Your task to perform on an android device: turn pop-ups off in chrome Image 0: 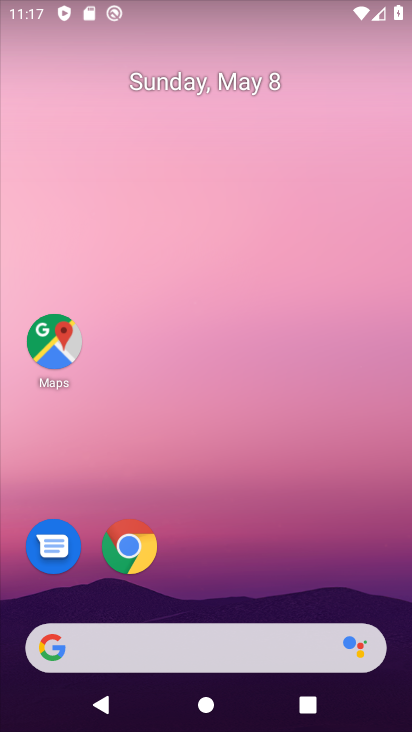
Step 0: click (141, 565)
Your task to perform on an android device: turn pop-ups off in chrome Image 1: 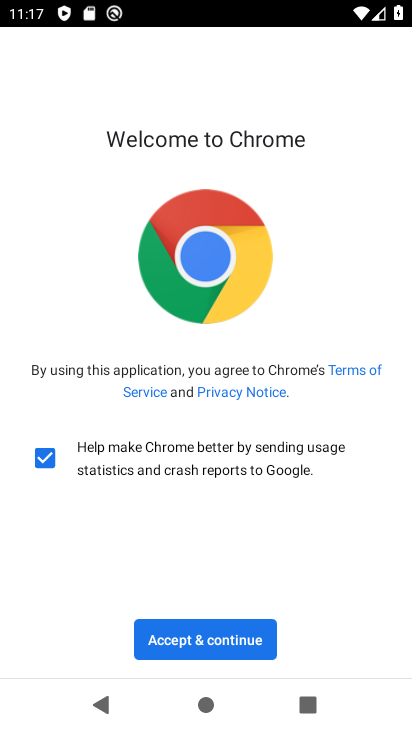
Step 1: click (242, 653)
Your task to perform on an android device: turn pop-ups off in chrome Image 2: 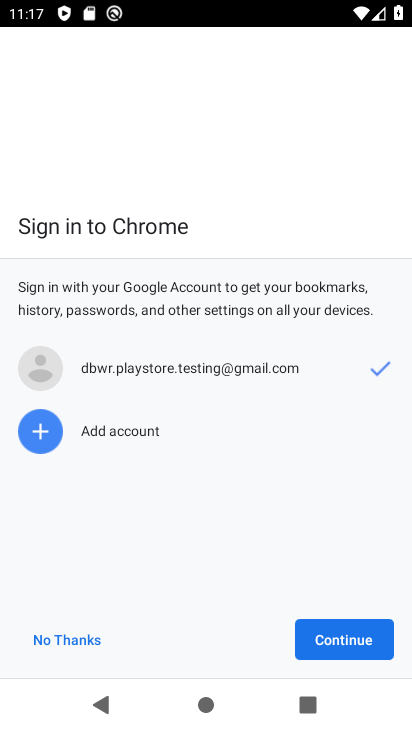
Step 2: click (341, 629)
Your task to perform on an android device: turn pop-ups off in chrome Image 3: 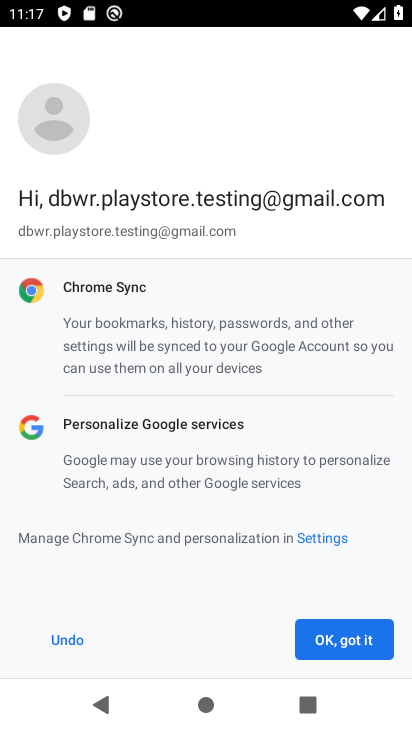
Step 3: click (341, 629)
Your task to perform on an android device: turn pop-ups off in chrome Image 4: 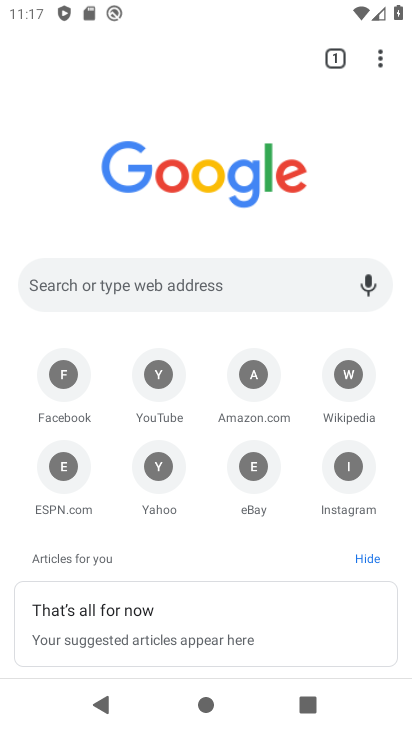
Step 4: click (384, 59)
Your task to perform on an android device: turn pop-ups off in chrome Image 5: 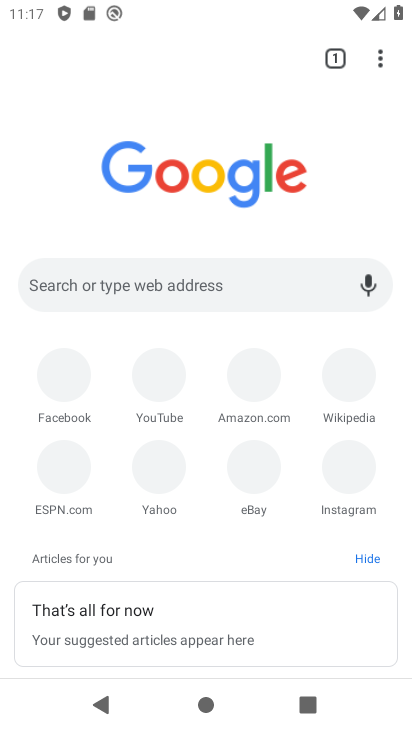
Step 5: drag from (384, 59) to (195, 490)
Your task to perform on an android device: turn pop-ups off in chrome Image 6: 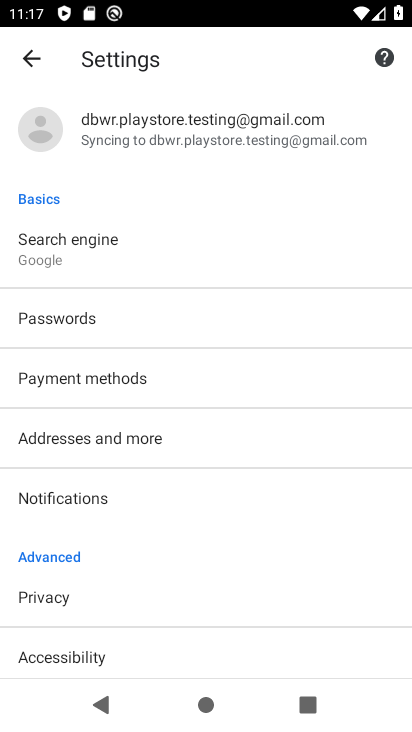
Step 6: drag from (215, 558) to (289, 169)
Your task to perform on an android device: turn pop-ups off in chrome Image 7: 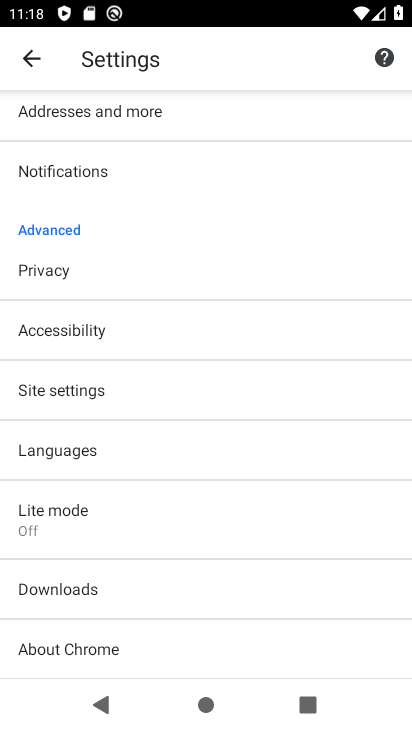
Step 7: click (111, 391)
Your task to perform on an android device: turn pop-ups off in chrome Image 8: 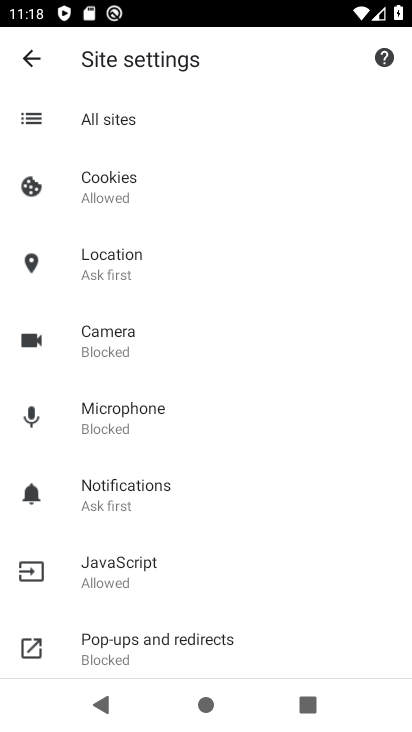
Step 8: click (198, 651)
Your task to perform on an android device: turn pop-ups off in chrome Image 9: 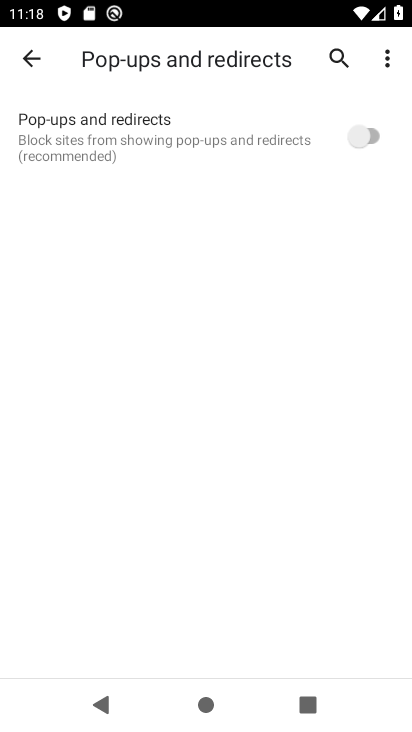
Step 9: task complete